Your task to perform on an android device: turn off smart reply in the gmail app Image 0: 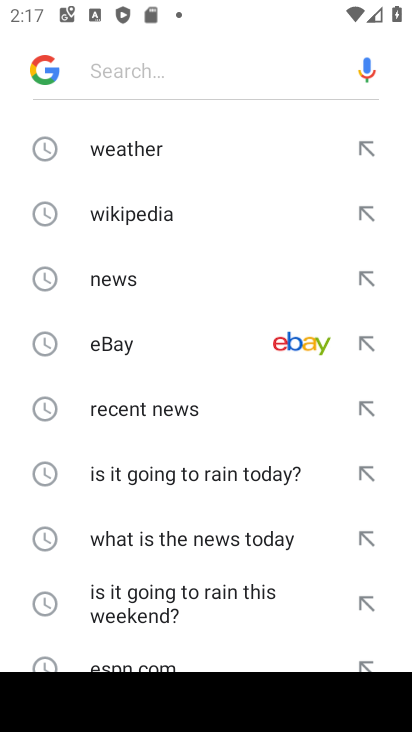
Step 0: press home button
Your task to perform on an android device: turn off smart reply in the gmail app Image 1: 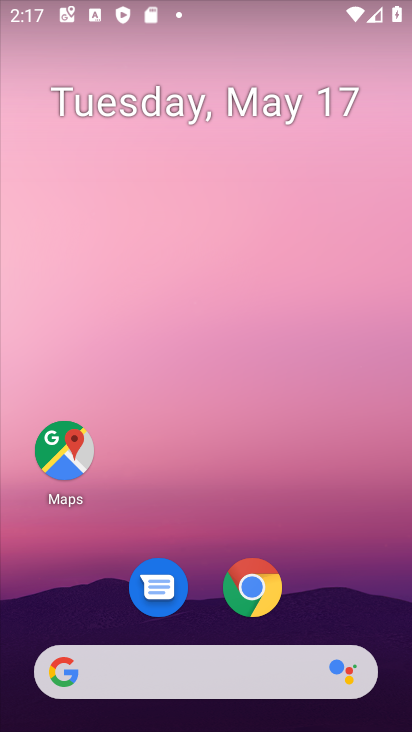
Step 1: drag from (202, 600) to (294, 152)
Your task to perform on an android device: turn off smart reply in the gmail app Image 2: 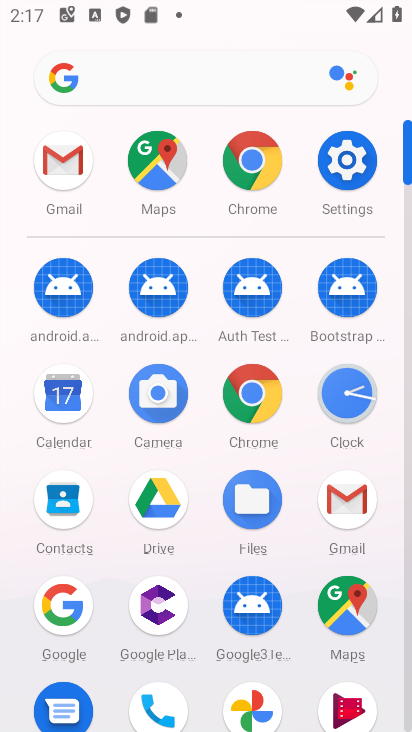
Step 2: click (341, 506)
Your task to perform on an android device: turn off smart reply in the gmail app Image 3: 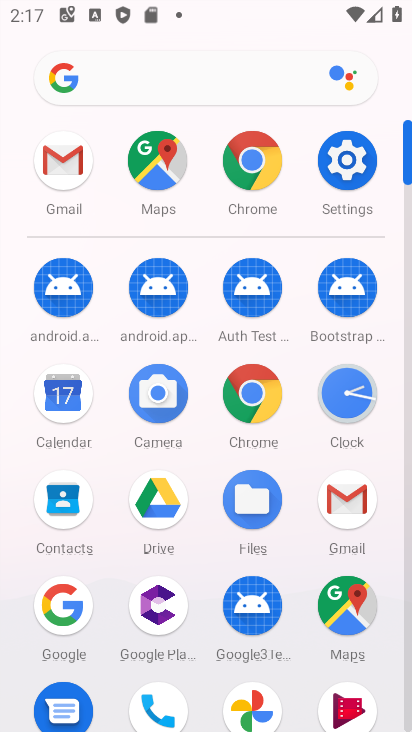
Step 3: click (341, 506)
Your task to perform on an android device: turn off smart reply in the gmail app Image 4: 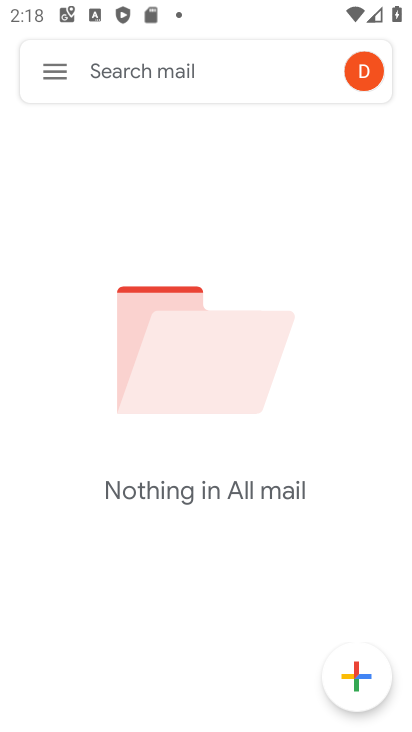
Step 4: click (59, 61)
Your task to perform on an android device: turn off smart reply in the gmail app Image 5: 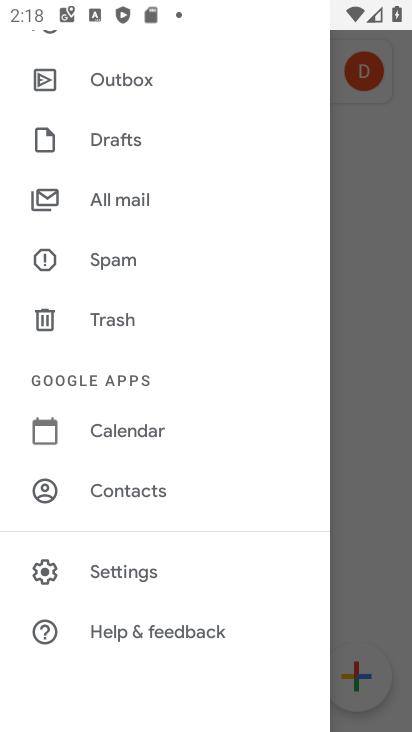
Step 5: click (132, 562)
Your task to perform on an android device: turn off smart reply in the gmail app Image 6: 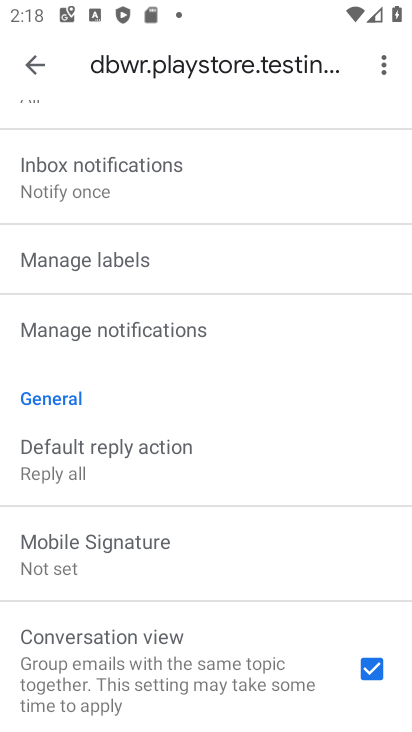
Step 6: drag from (203, 588) to (260, 285)
Your task to perform on an android device: turn off smart reply in the gmail app Image 7: 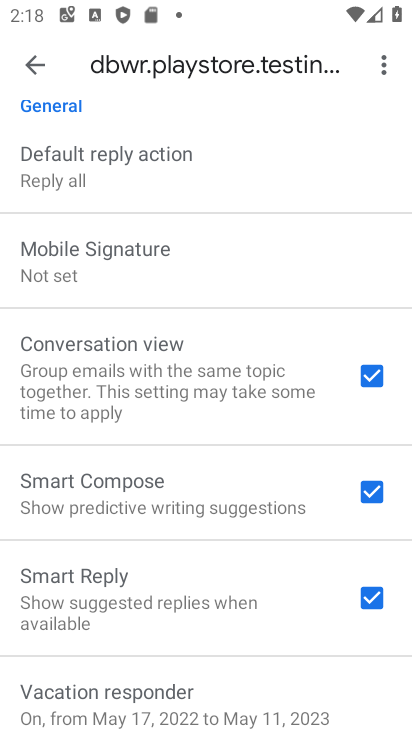
Step 7: drag from (105, 157) to (213, 523)
Your task to perform on an android device: turn off smart reply in the gmail app Image 8: 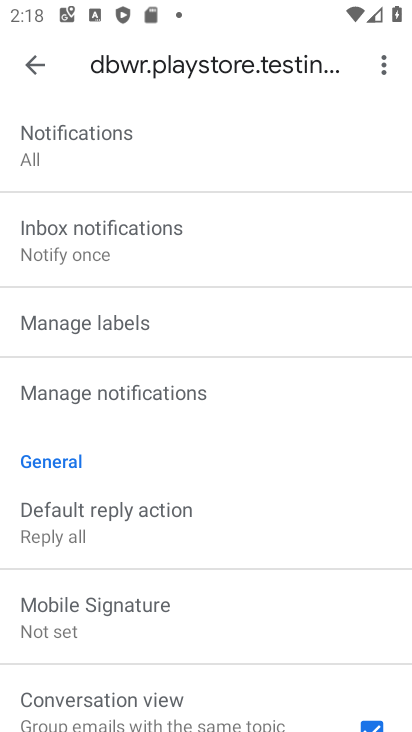
Step 8: drag from (235, 536) to (405, 7)
Your task to perform on an android device: turn off smart reply in the gmail app Image 9: 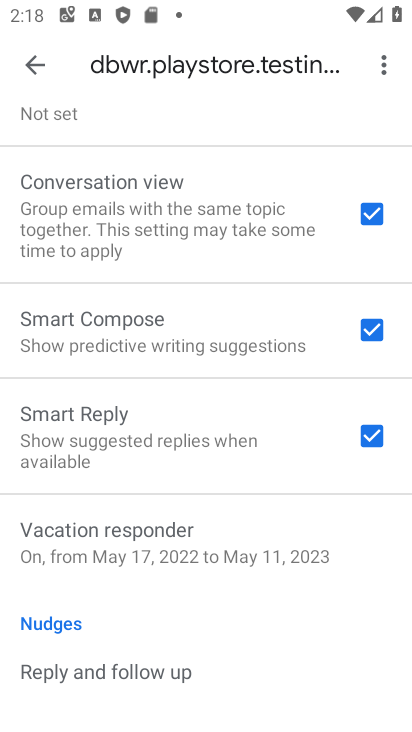
Step 9: click (354, 430)
Your task to perform on an android device: turn off smart reply in the gmail app Image 10: 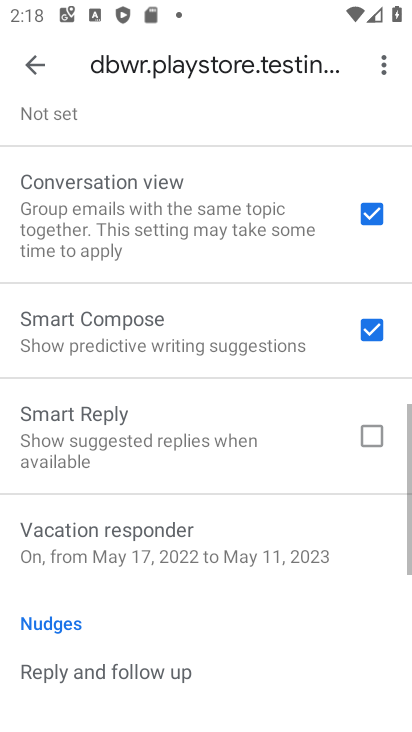
Step 10: task complete